Your task to perform on an android device: toggle javascript in the chrome app Image 0: 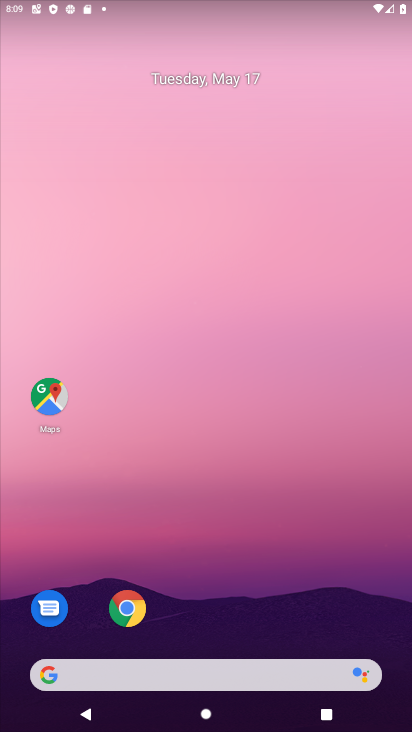
Step 0: click (129, 614)
Your task to perform on an android device: toggle javascript in the chrome app Image 1: 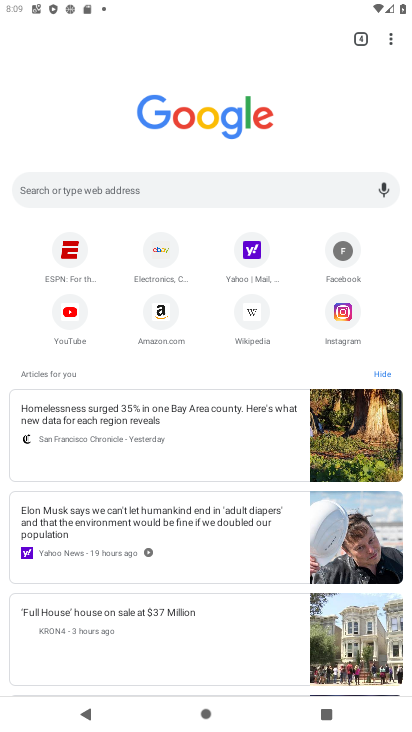
Step 1: click (398, 31)
Your task to perform on an android device: toggle javascript in the chrome app Image 2: 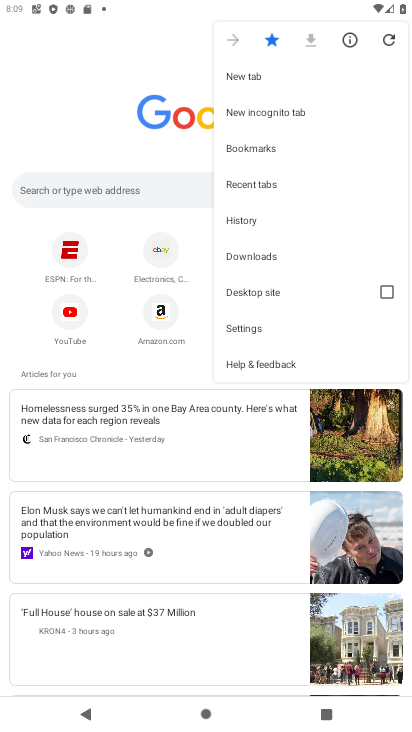
Step 2: click (247, 333)
Your task to perform on an android device: toggle javascript in the chrome app Image 3: 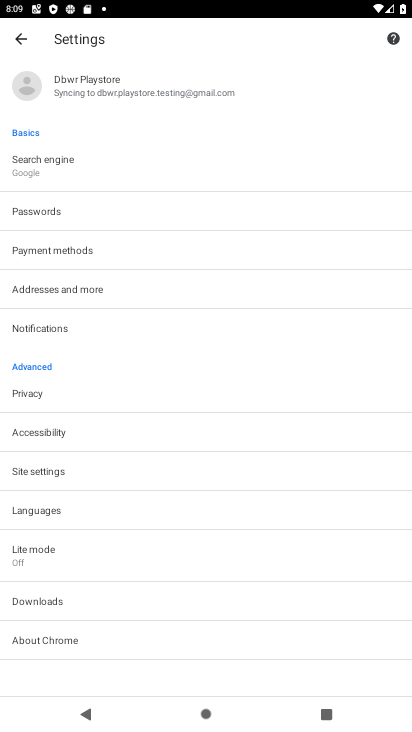
Step 3: click (88, 473)
Your task to perform on an android device: toggle javascript in the chrome app Image 4: 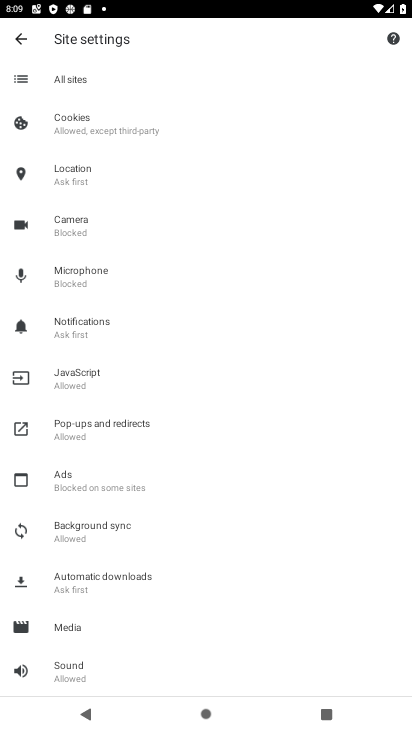
Step 4: click (120, 377)
Your task to perform on an android device: toggle javascript in the chrome app Image 5: 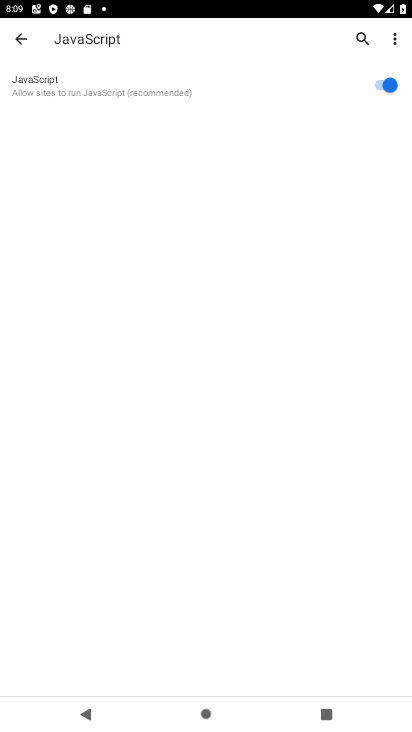
Step 5: click (395, 94)
Your task to perform on an android device: toggle javascript in the chrome app Image 6: 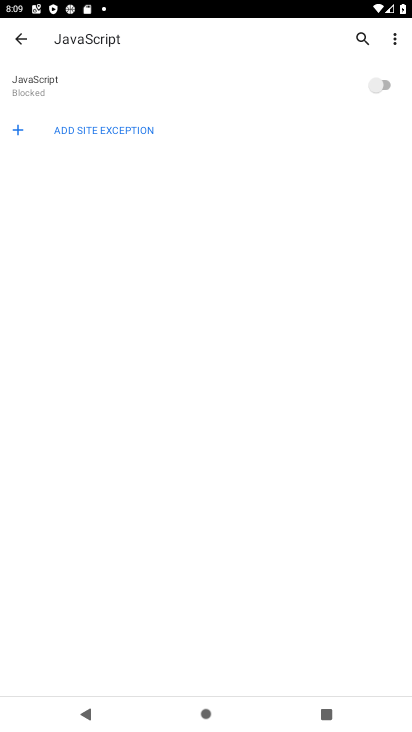
Step 6: click (395, 94)
Your task to perform on an android device: toggle javascript in the chrome app Image 7: 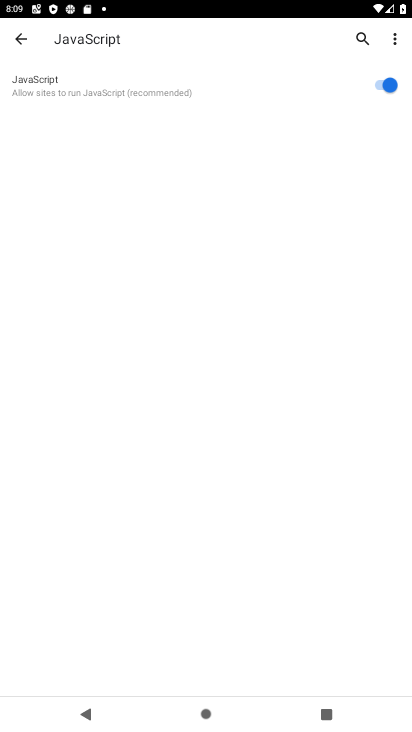
Step 7: task complete